Your task to perform on an android device: Open wifi settings Image 0: 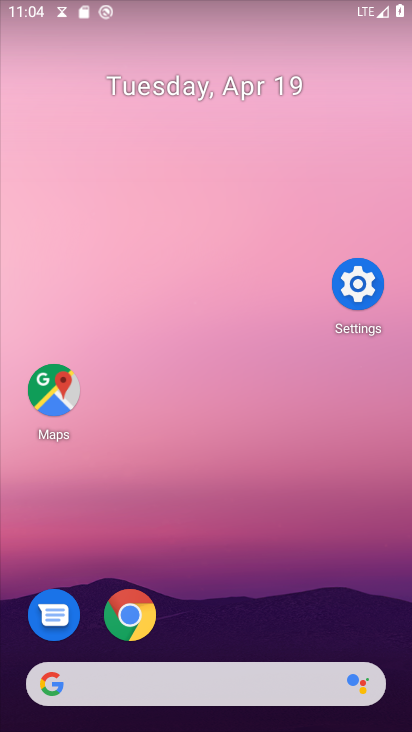
Step 0: drag from (216, 585) to (353, 269)
Your task to perform on an android device: Open wifi settings Image 1: 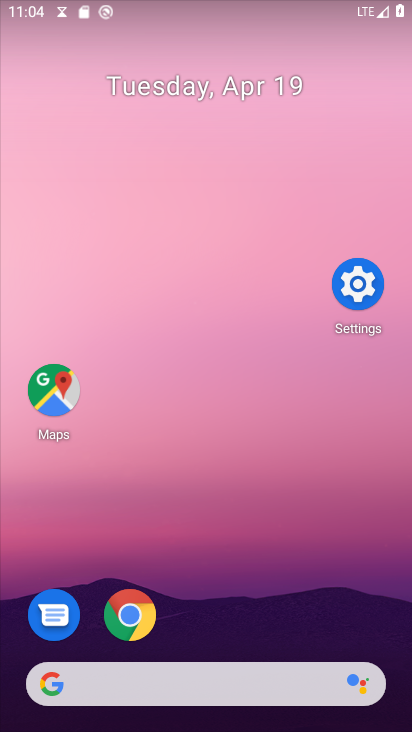
Step 1: drag from (268, 401) to (324, 219)
Your task to perform on an android device: Open wifi settings Image 2: 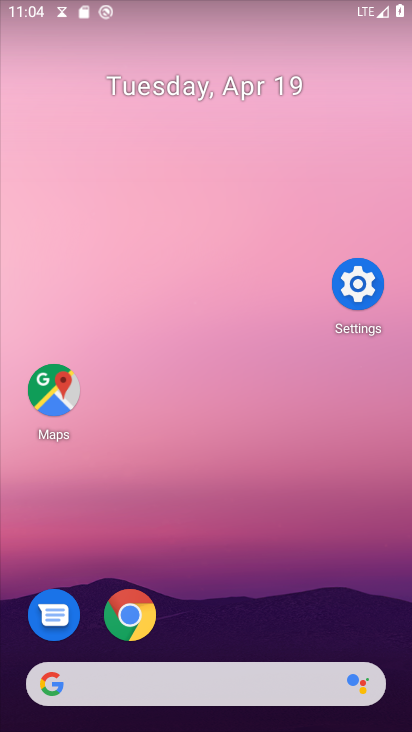
Step 2: drag from (224, 629) to (370, 249)
Your task to perform on an android device: Open wifi settings Image 3: 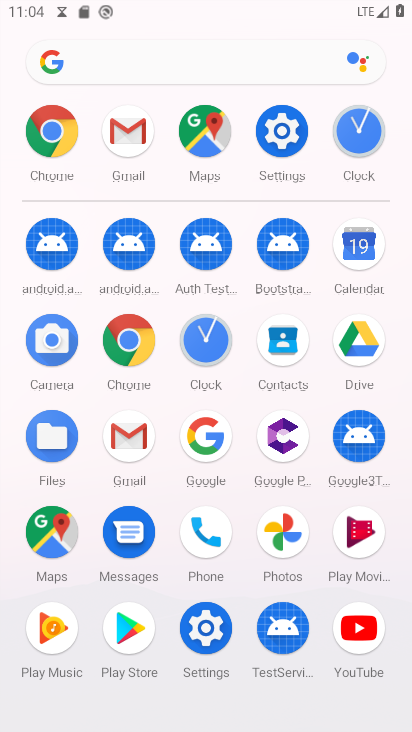
Step 3: click (210, 632)
Your task to perform on an android device: Open wifi settings Image 4: 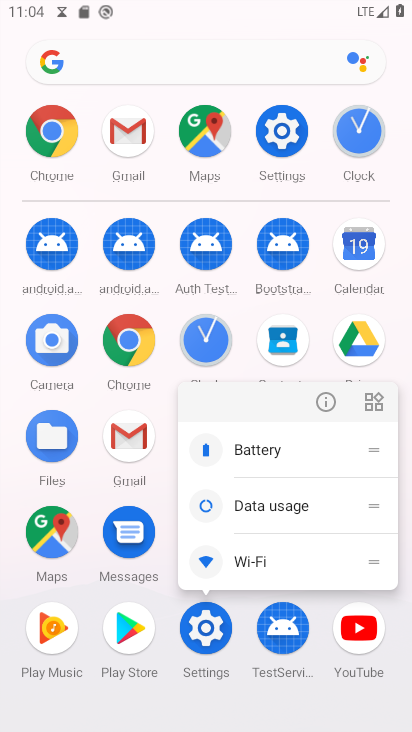
Step 4: click (323, 396)
Your task to perform on an android device: Open wifi settings Image 5: 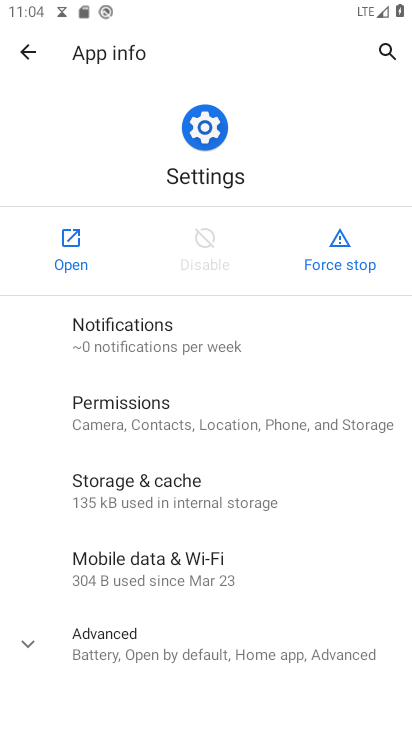
Step 5: click (74, 252)
Your task to perform on an android device: Open wifi settings Image 6: 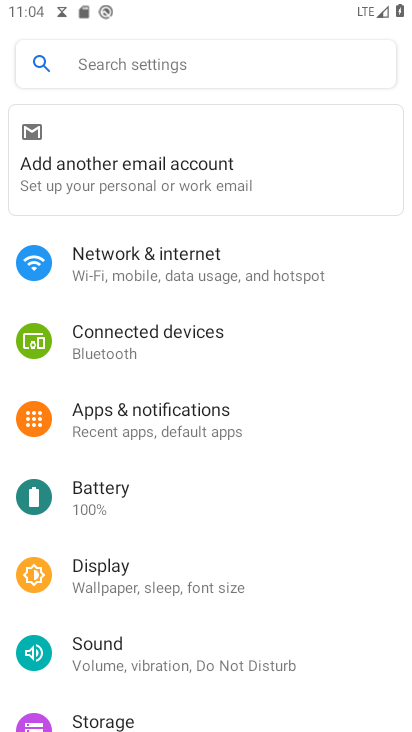
Step 6: click (145, 279)
Your task to perform on an android device: Open wifi settings Image 7: 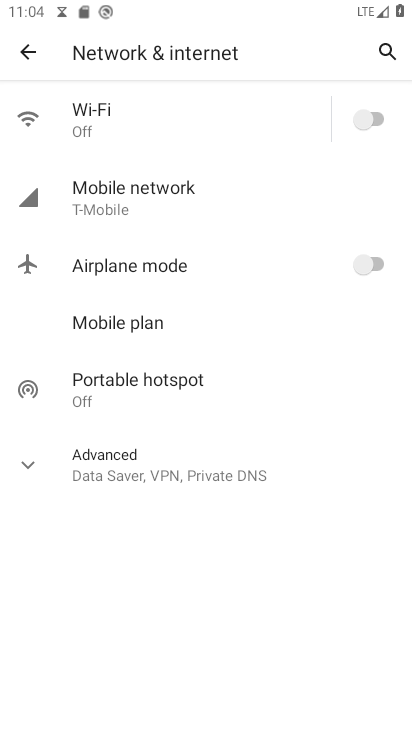
Step 7: click (191, 126)
Your task to perform on an android device: Open wifi settings Image 8: 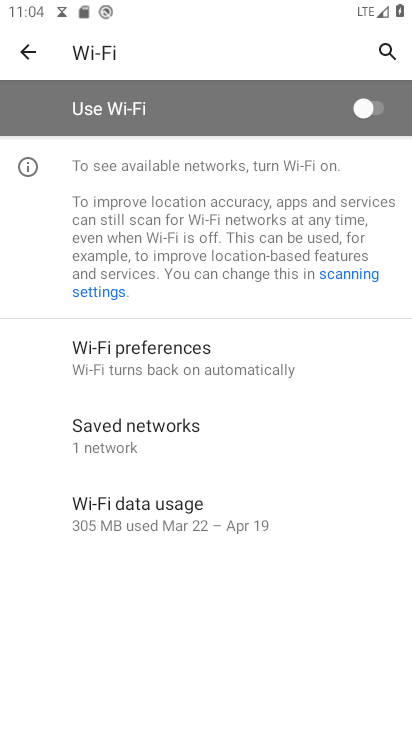
Step 8: click (344, 117)
Your task to perform on an android device: Open wifi settings Image 9: 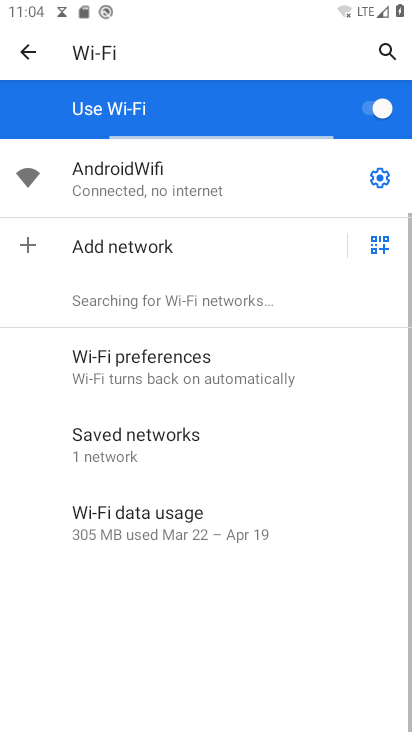
Step 9: task complete